Your task to perform on an android device: What's the weather today? Image 0: 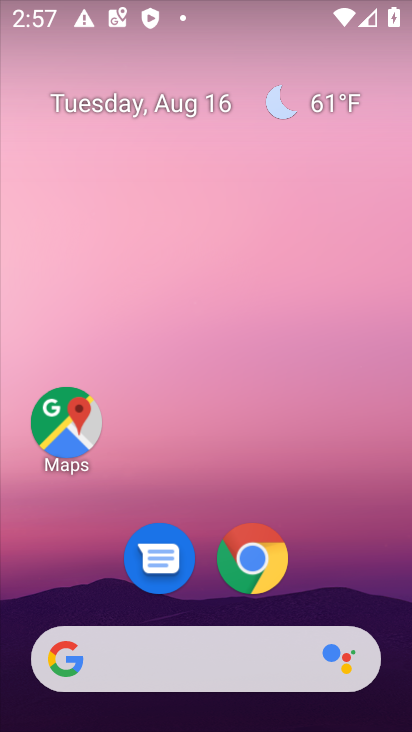
Step 0: click (312, 107)
Your task to perform on an android device: What's the weather today? Image 1: 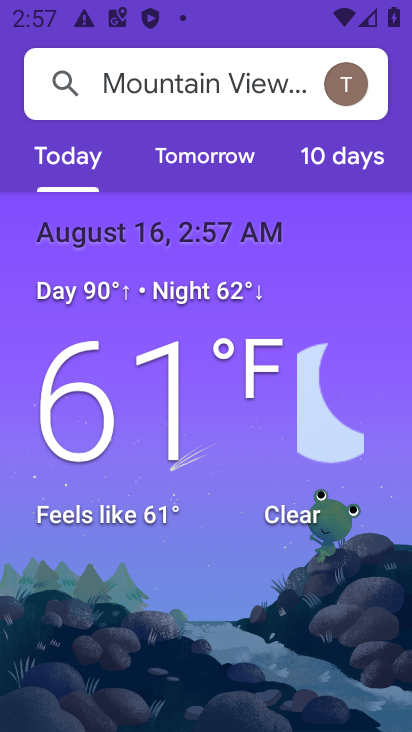
Step 1: task complete